Your task to perform on an android device: Open display settings Image 0: 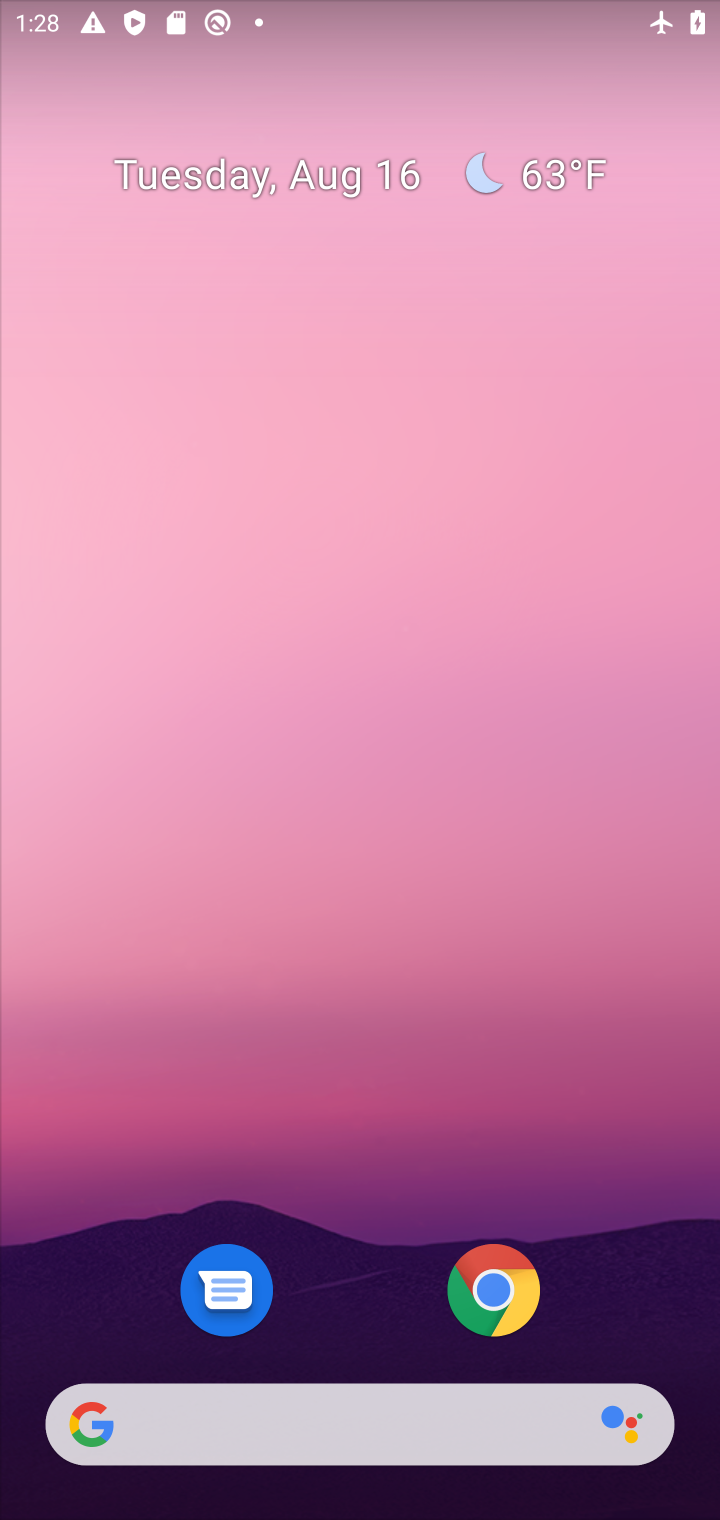
Step 0: drag from (48, 1193) to (410, 120)
Your task to perform on an android device: Open display settings Image 1: 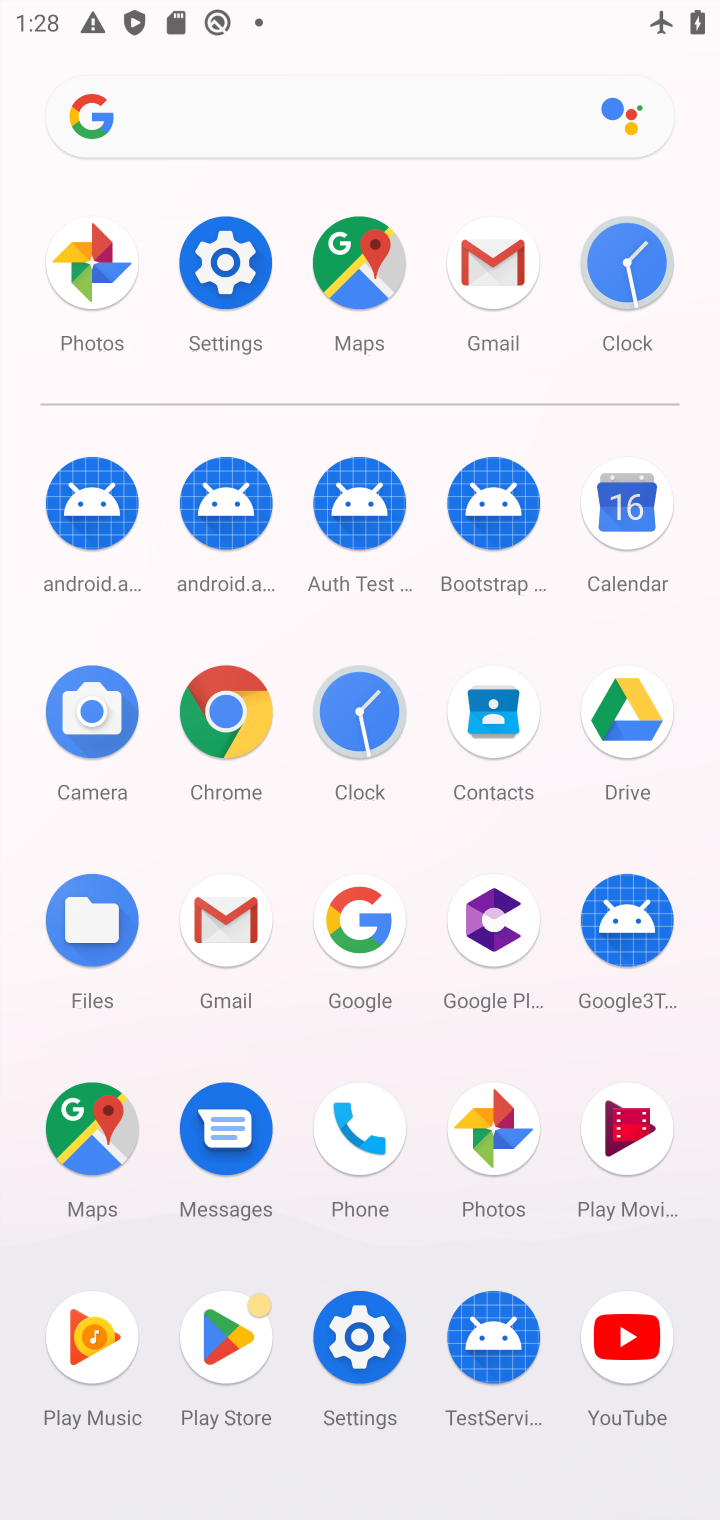
Step 1: click (224, 255)
Your task to perform on an android device: Open display settings Image 2: 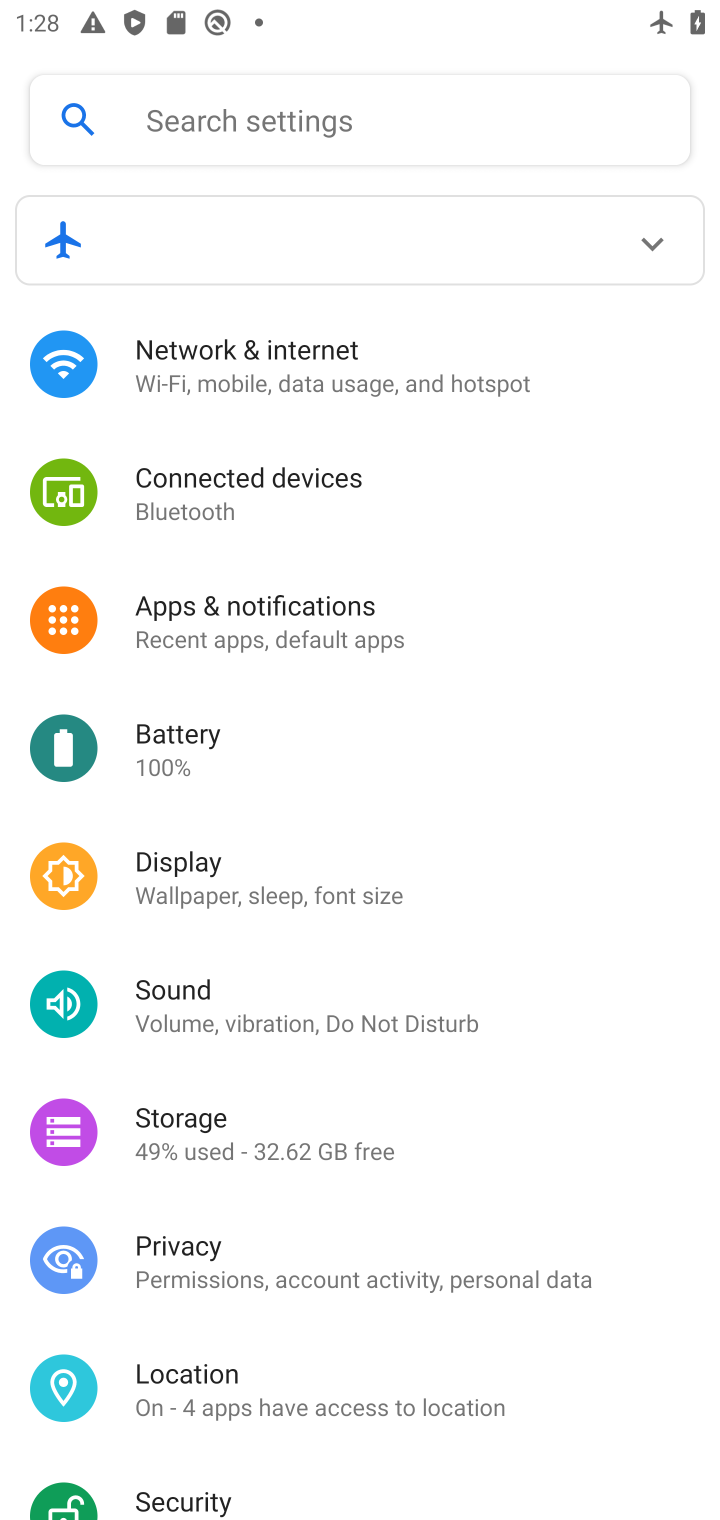
Step 2: click (231, 361)
Your task to perform on an android device: Open display settings Image 3: 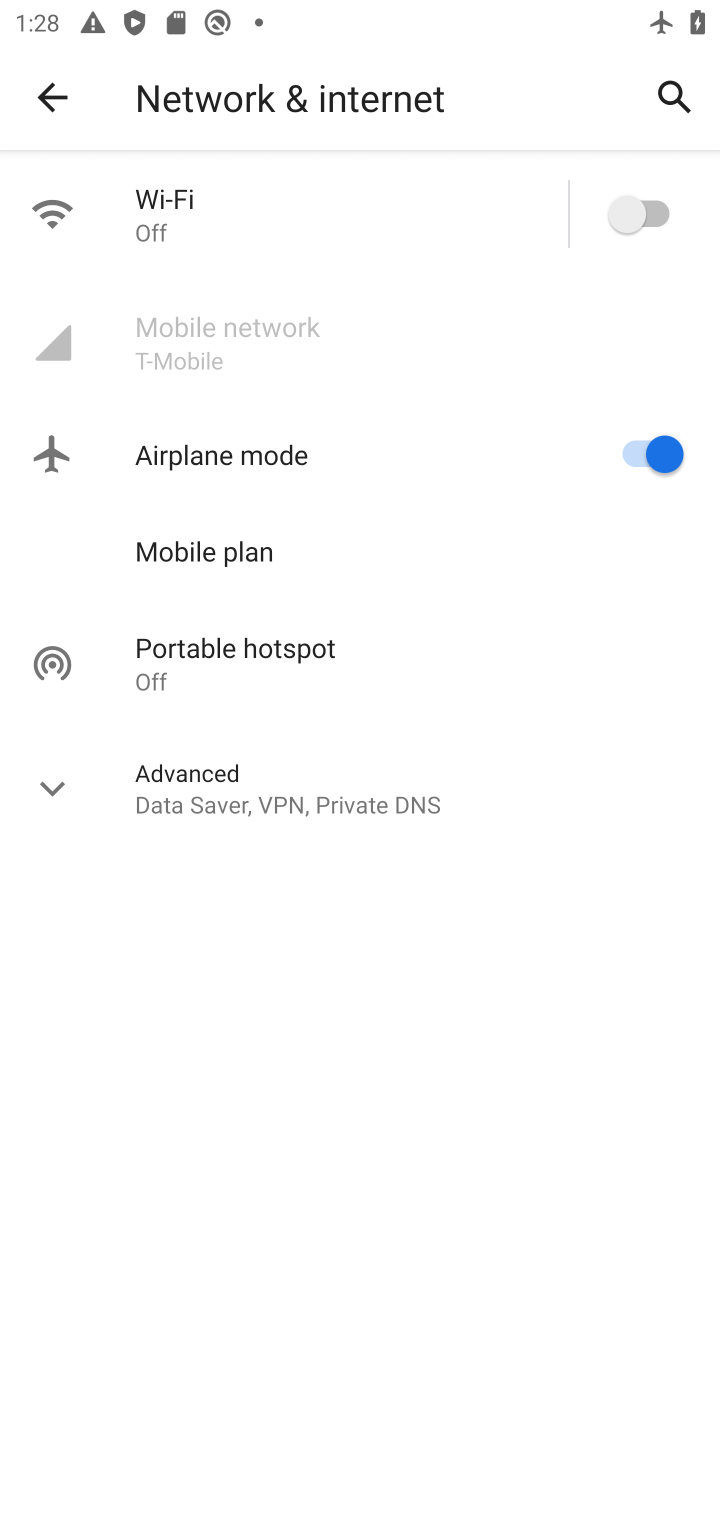
Step 3: click (673, 448)
Your task to perform on an android device: Open display settings Image 4: 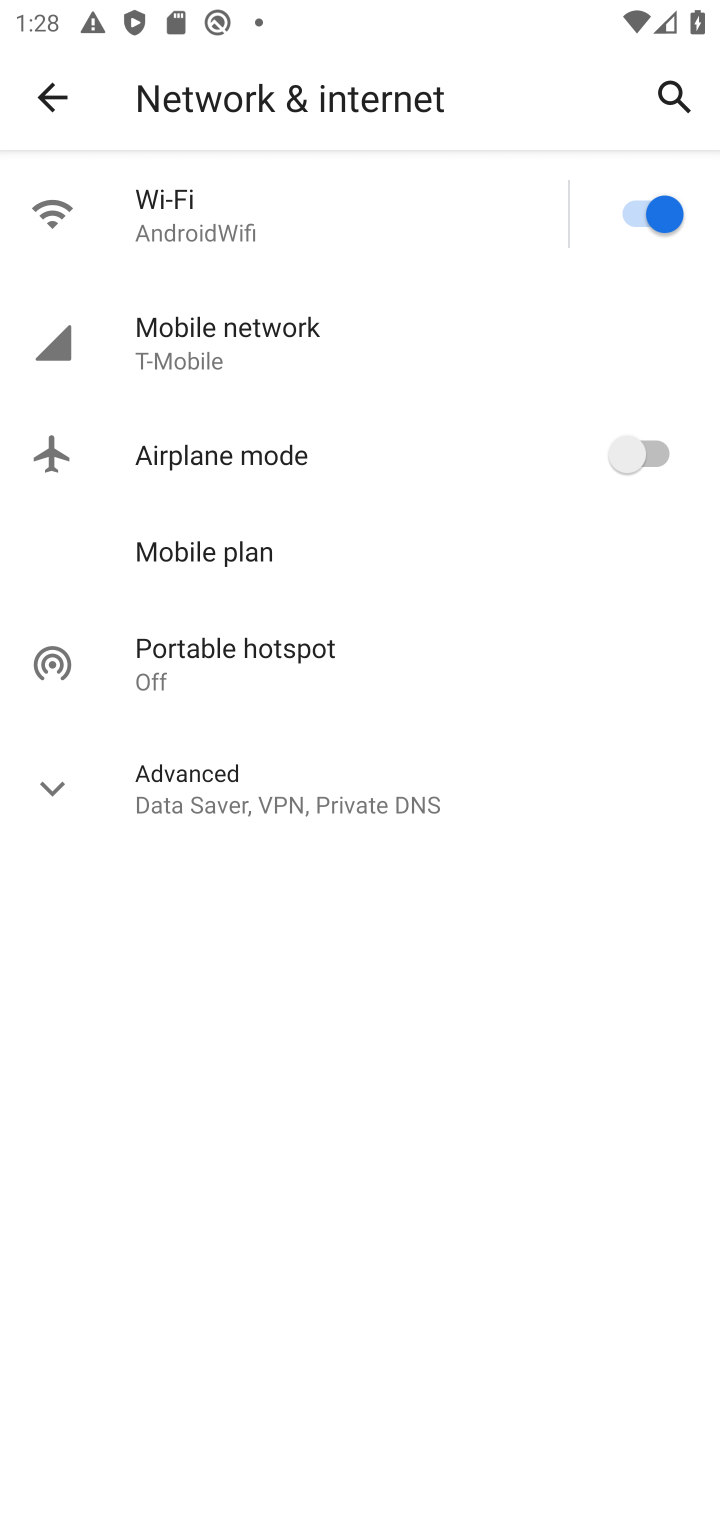
Step 4: press home button
Your task to perform on an android device: Open display settings Image 5: 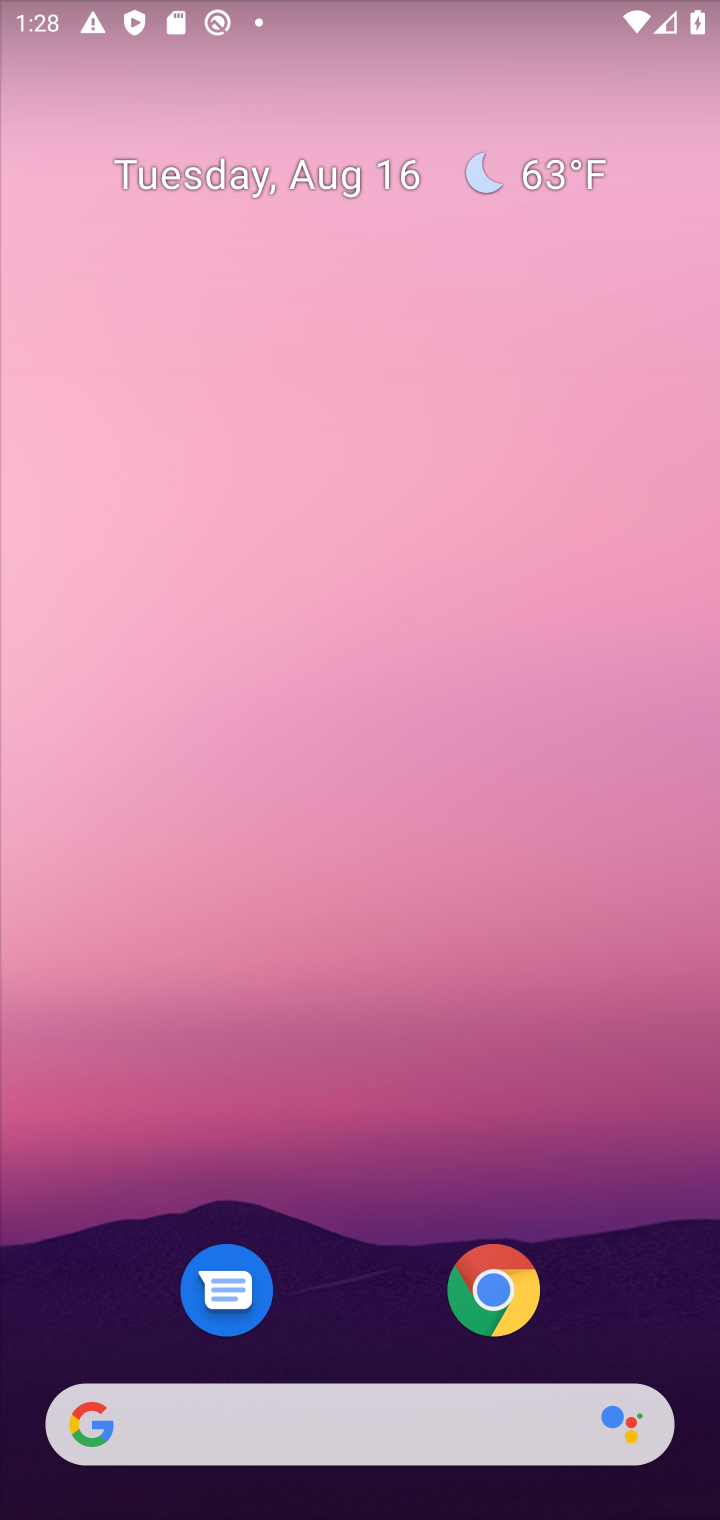
Step 5: drag from (22, 1305) to (367, 293)
Your task to perform on an android device: Open display settings Image 6: 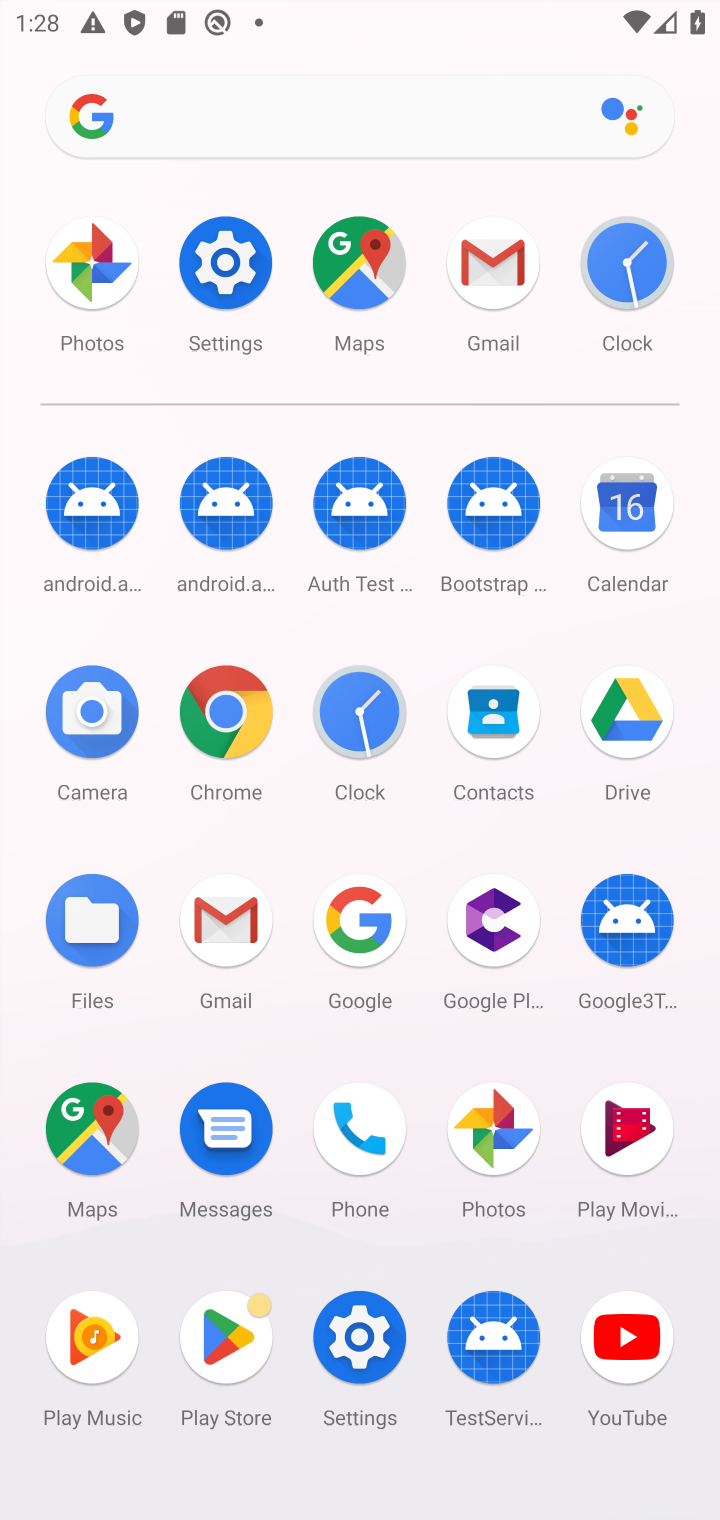
Step 6: click (353, 1338)
Your task to perform on an android device: Open display settings Image 7: 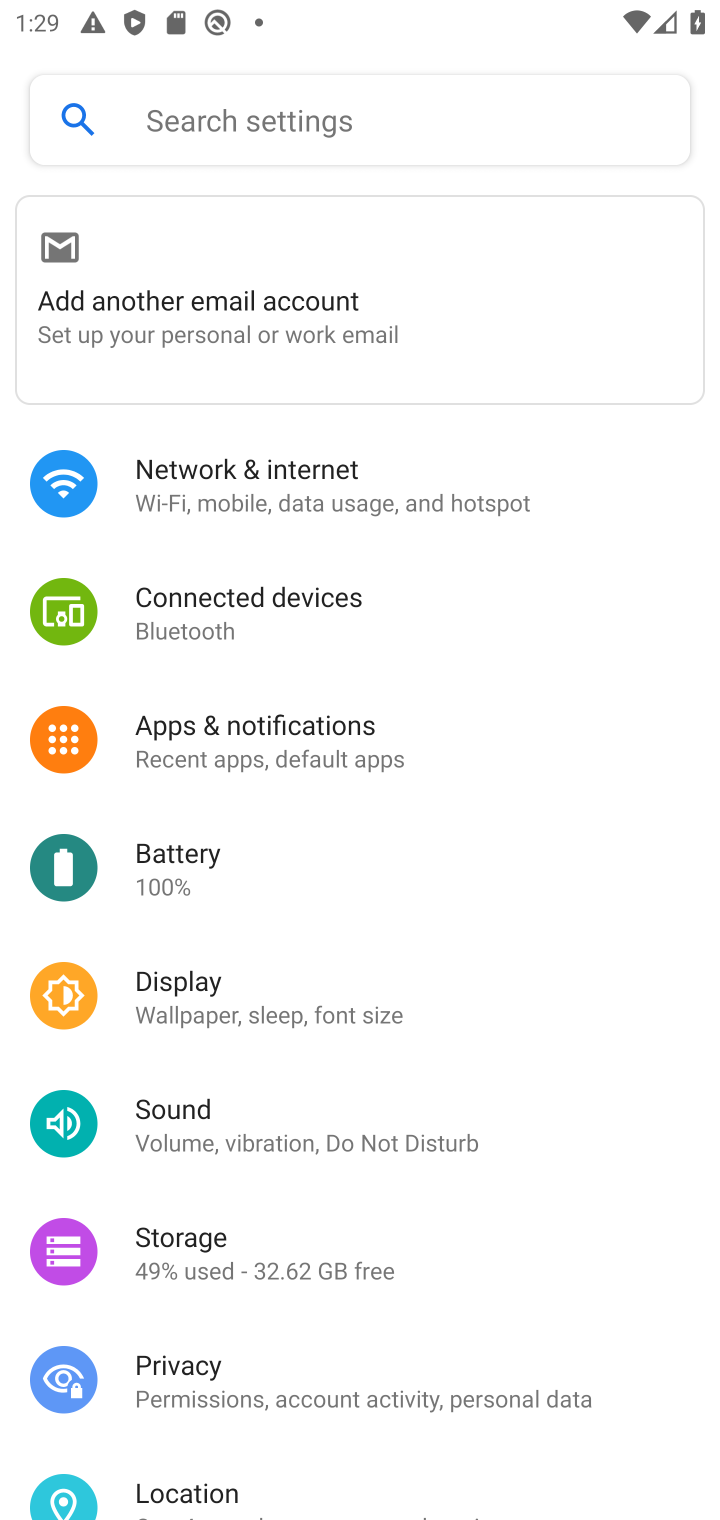
Step 7: click (159, 1006)
Your task to perform on an android device: Open display settings Image 8: 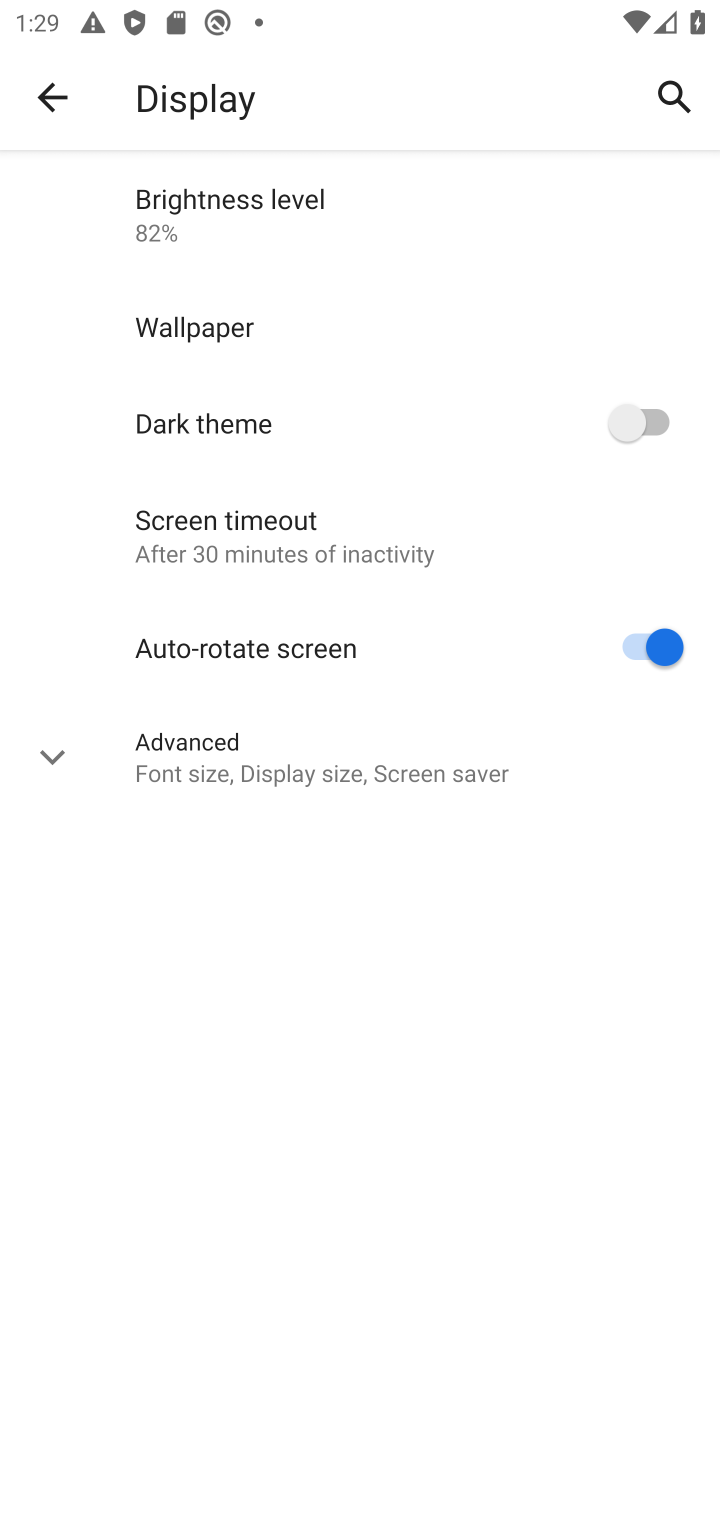
Step 8: task complete